Your task to perform on an android device: Find coffee shops on Maps Image 0: 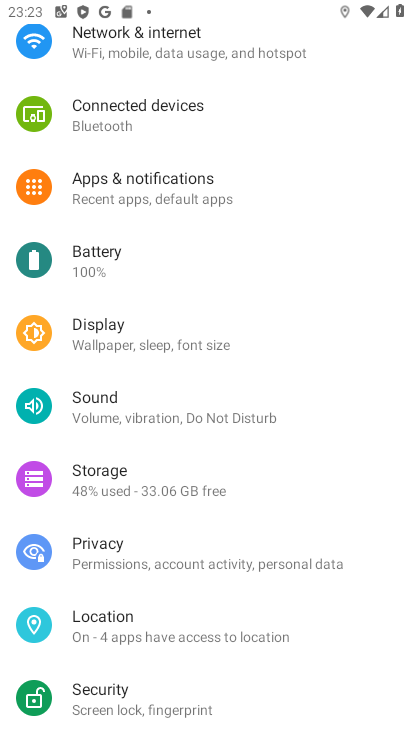
Step 0: press home button
Your task to perform on an android device: Find coffee shops on Maps Image 1: 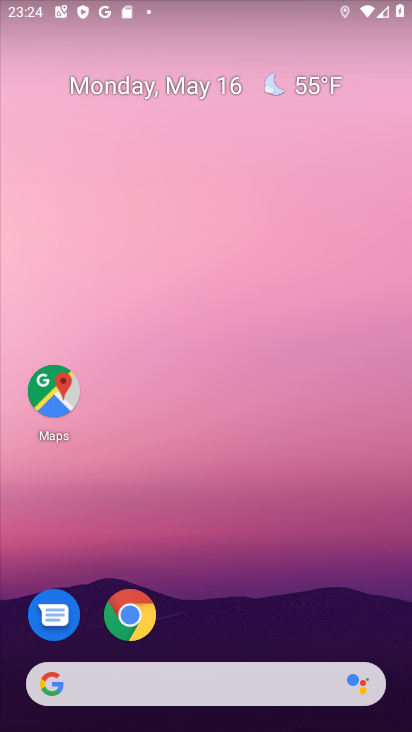
Step 1: click (76, 381)
Your task to perform on an android device: Find coffee shops on Maps Image 2: 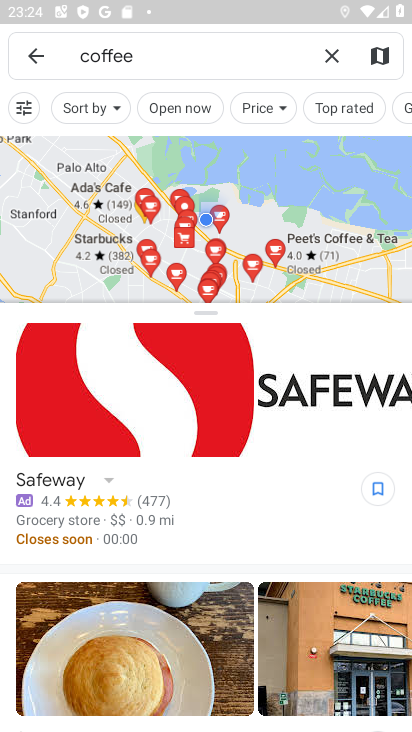
Step 2: task complete